Your task to perform on an android device: toggle priority inbox in the gmail app Image 0: 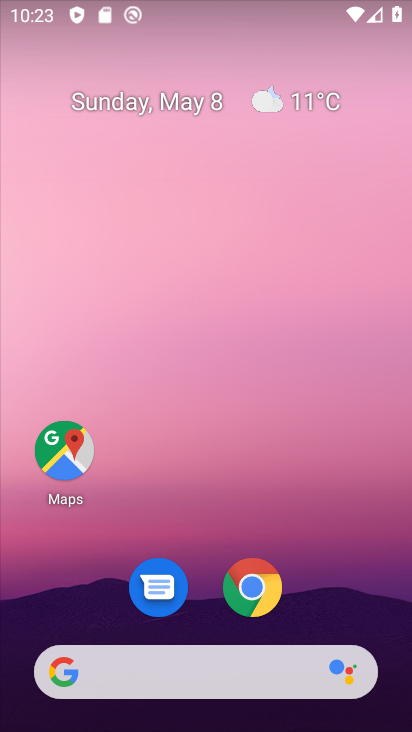
Step 0: drag from (205, 657) to (158, 244)
Your task to perform on an android device: toggle priority inbox in the gmail app Image 1: 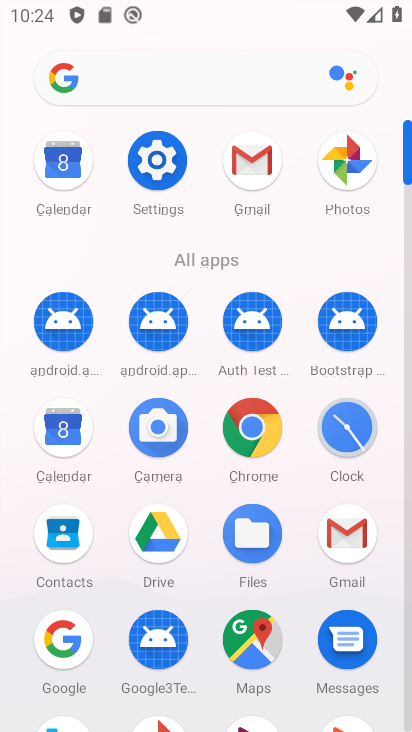
Step 1: click (352, 524)
Your task to perform on an android device: toggle priority inbox in the gmail app Image 2: 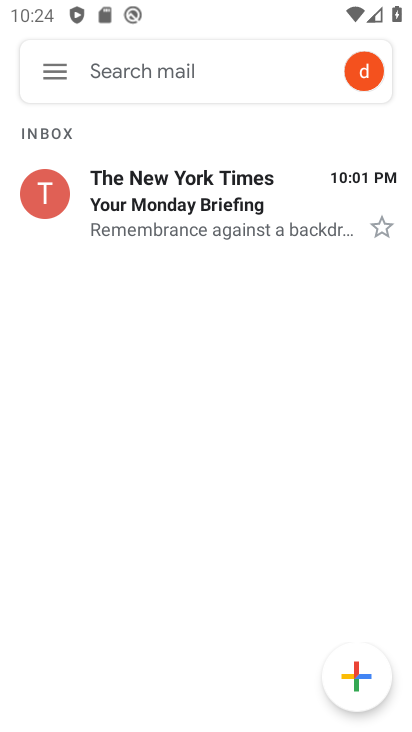
Step 2: click (58, 78)
Your task to perform on an android device: toggle priority inbox in the gmail app Image 3: 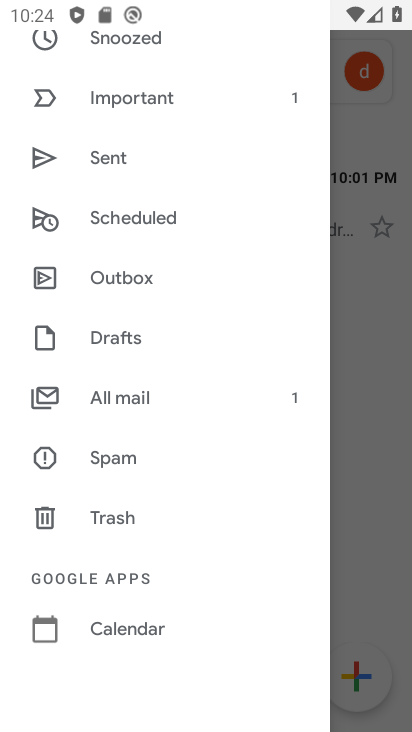
Step 3: drag from (137, 601) to (83, 76)
Your task to perform on an android device: toggle priority inbox in the gmail app Image 4: 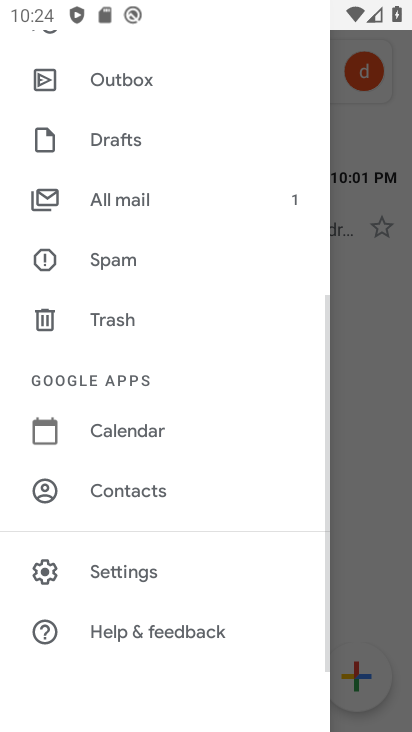
Step 4: click (116, 582)
Your task to perform on an android device: toggle priority inbox in the gmail app Image 5: 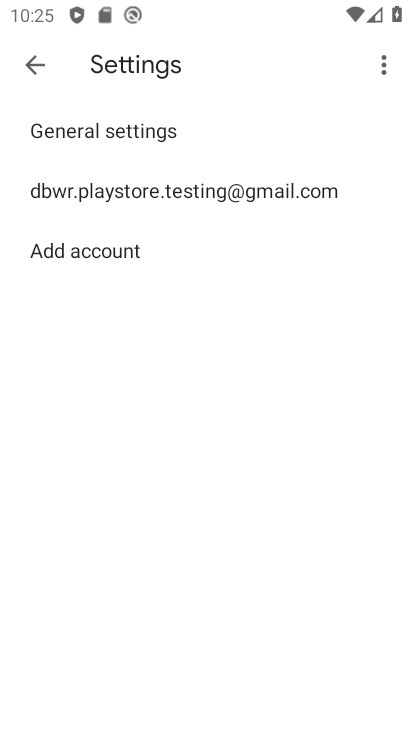
Step 5: click (117, 186)
Your task to perform on an android device: toggle priority inbox in the gmail app Image 6: 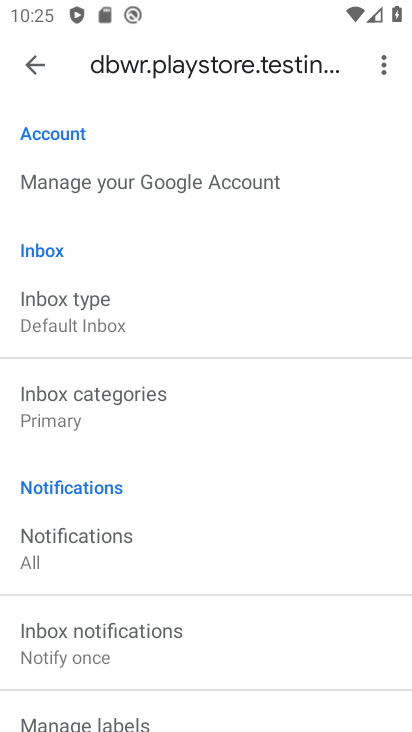
Step 6: click (103, 312)
Your task to perform on an android device: toggle priority inbox in the gmail app Image 7: 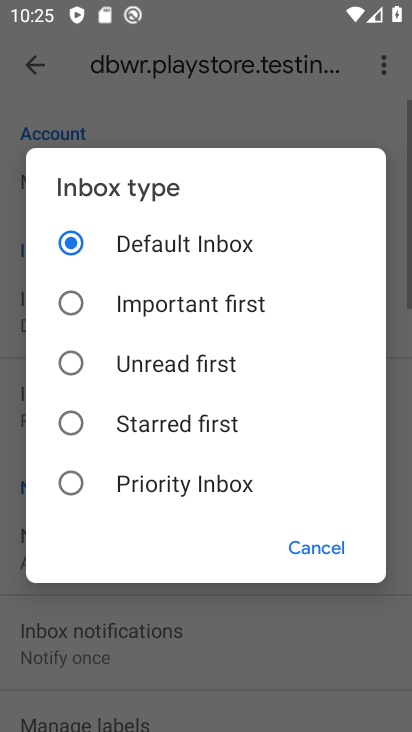
Step 7: click (144, 489)
Your task to perform on an android device: toggle priority inbox in the gmail app Image 8: 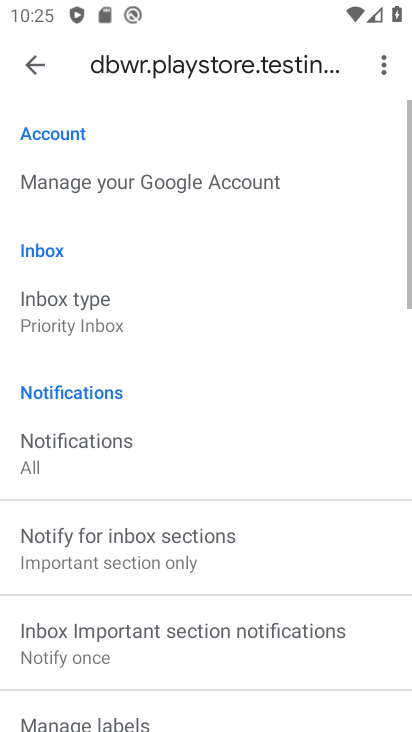
Step 8: task complete